Your task to perform on an android device: change alarm snooze length Image 0: 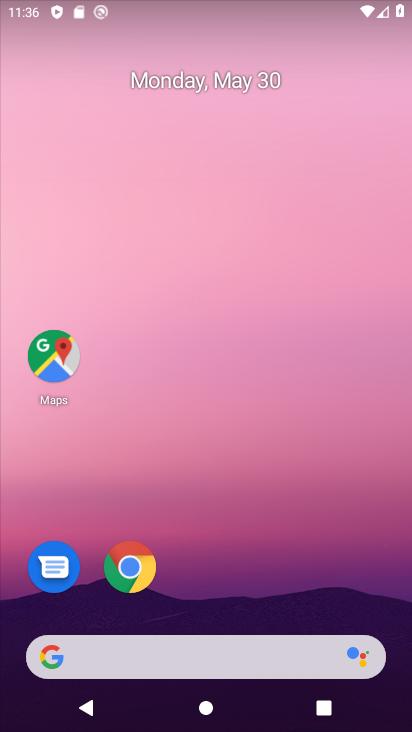
Step 0: drag from (311, 486) to (245, 8)
Your task to perform on an android device: change alarm snooze length Image 1: 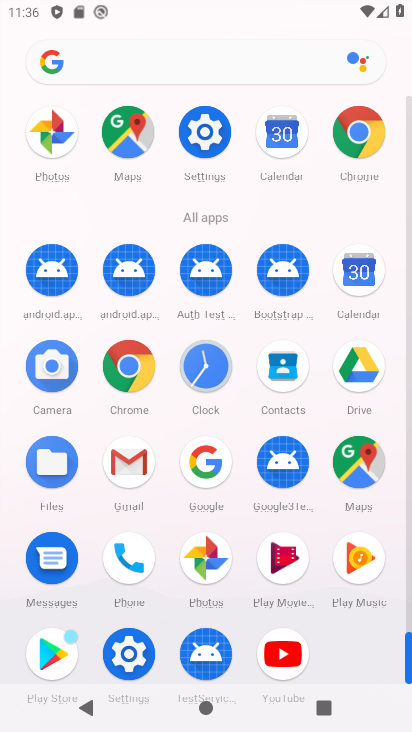
Step 1: drag from (12, 581) to (19, 182)
Your task to perform on an android device: change alarm snooze length Image 2: 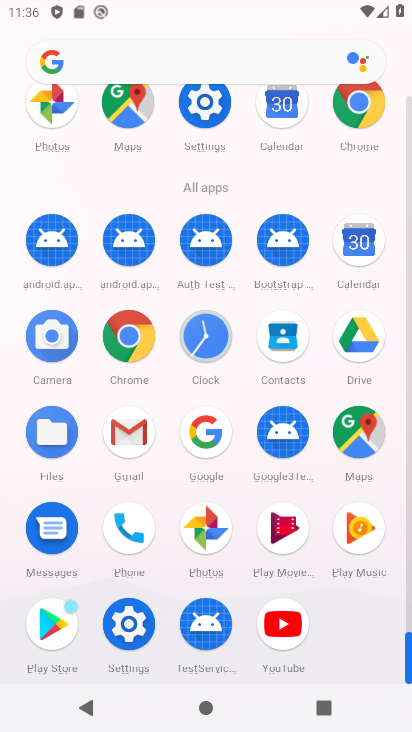
Step 2: drag from (9, 528) to (33, 202)
Your task to perform on an android device: change alarm snooze length Image 3: 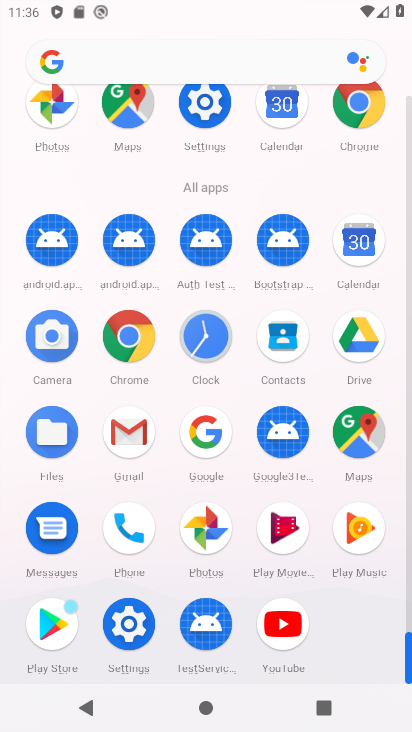
Step 3: drag from (5, 552) to (12, 233)
Your task to perform on an android device: change alarm snooze length Image 4: 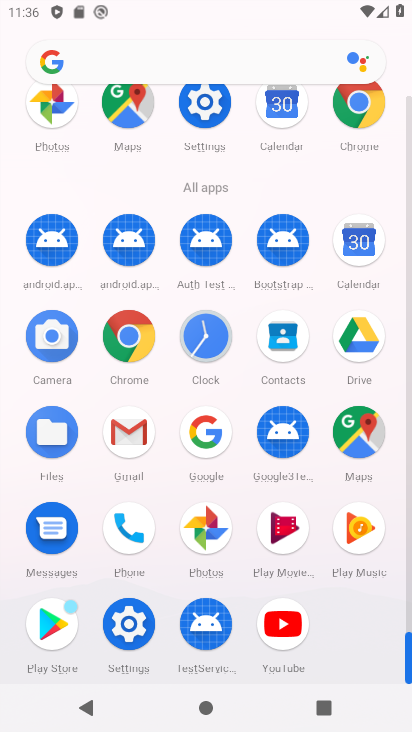
Step 4: click (201, 330)
Your task to perform on an android device: change alarm snooze length Image 5: 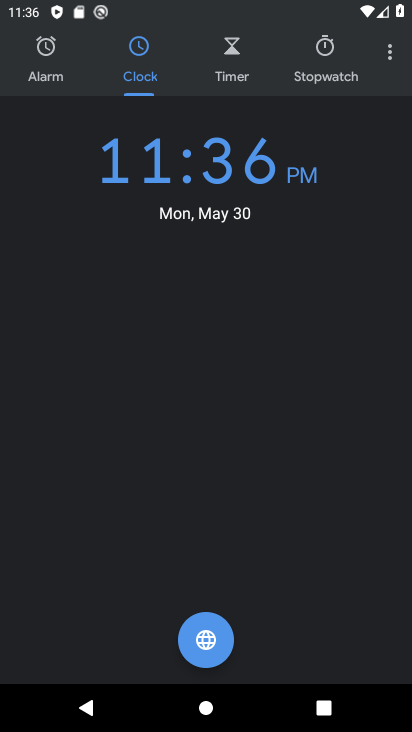
Step 5: drag from (390, 51) to (338, 97)
Your task to perform on an android device: change alarm snooze length Image 6: 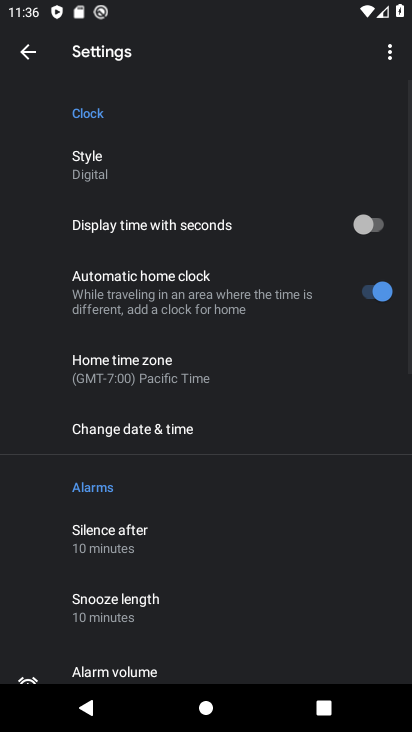
Step 6: drag from (252, 541) to (234, 120)
Your task to perform on an android device: change alarm snooze length Image 7: 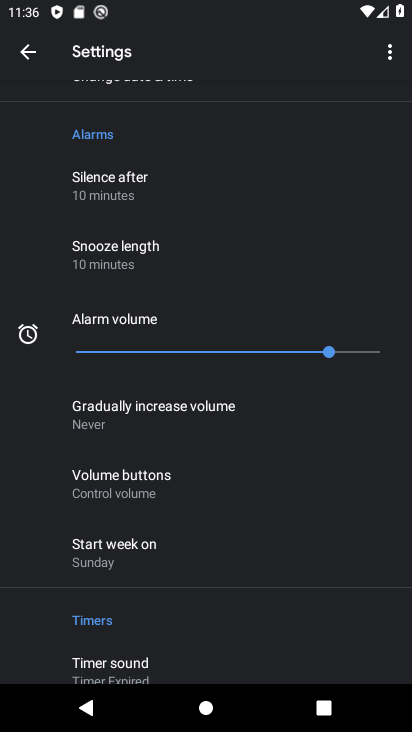
Step 7: click (121, 260)
Your task to perform on an android device: change alarm snooze length Image 8: 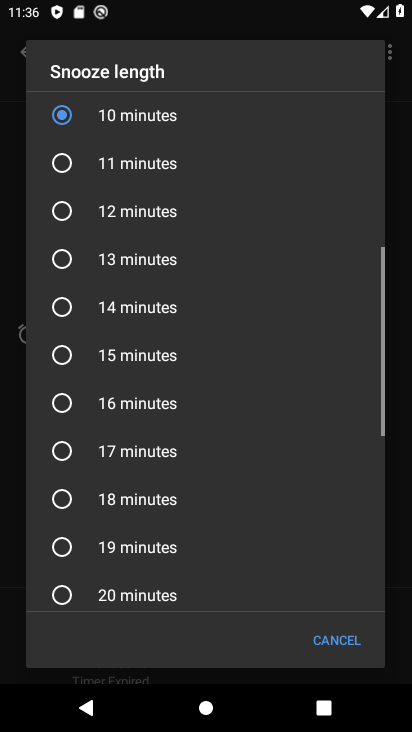
Step 8: click (129, 155)
Your task to perform on an android device: change alarm snooze length Image 9: 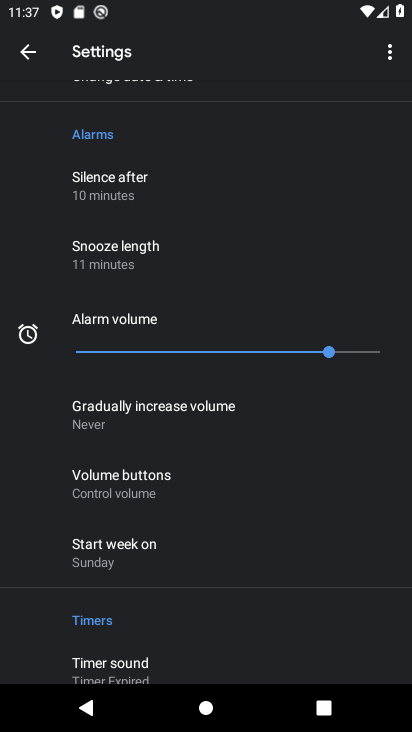
Step 9: task complete